Your task to perform on an android device: add a contact Image 0: 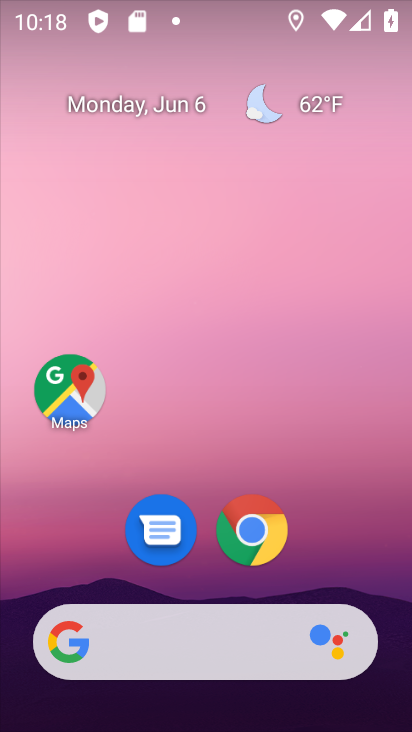
Step 0: drag from (317, 569) to (310, 186)
Your task to perform on an android device: add a contact Image 1: 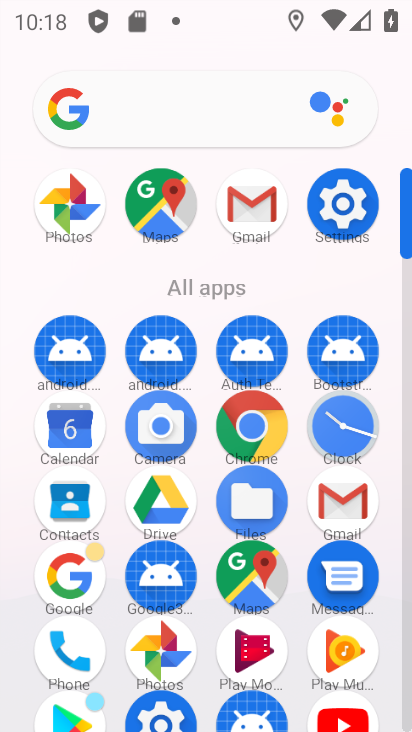
Step 1: click (68, 497)
Your task to perform on an android device: add a contact Image 2: 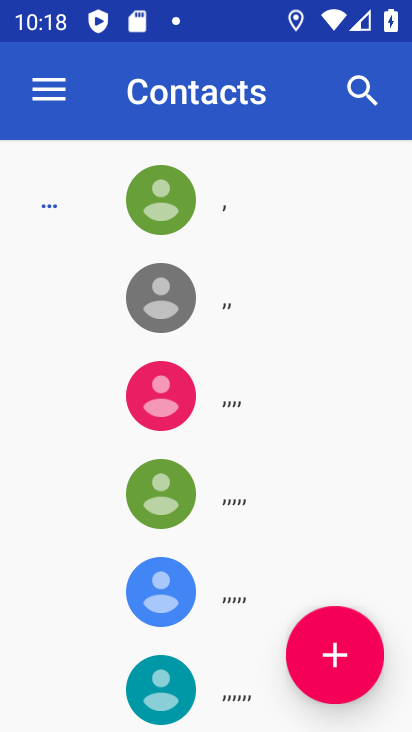
Step 2: click (319, 660)
Your task to perform on an android device: add a contact Image 3: 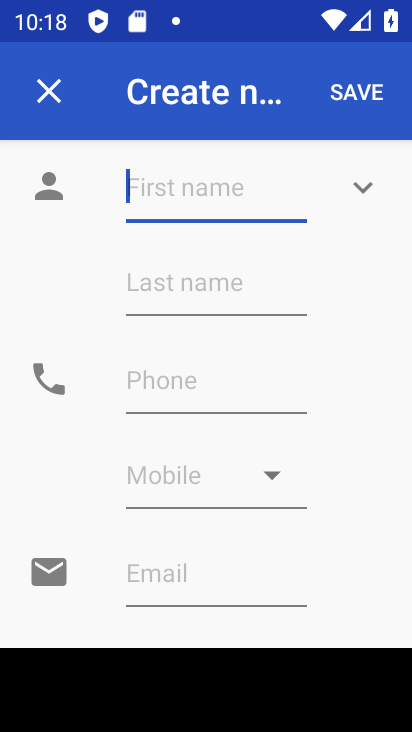
Step 3: type "hjkki"
Your task to perform on an android device: add a contact Image 4: 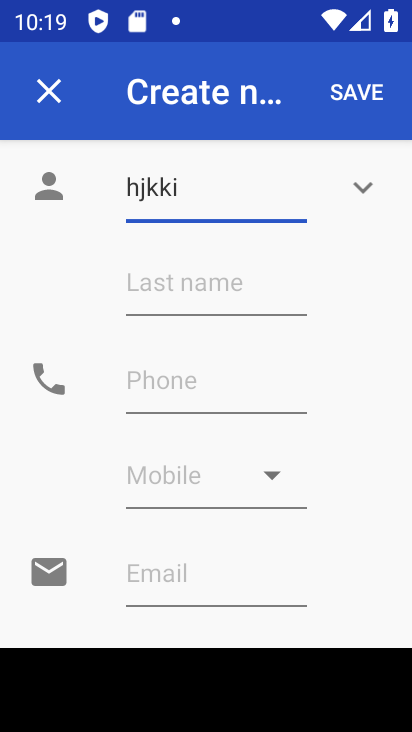
Step 4: click (343, 94)
Your task to perform on an android device: add a contact Image 5: 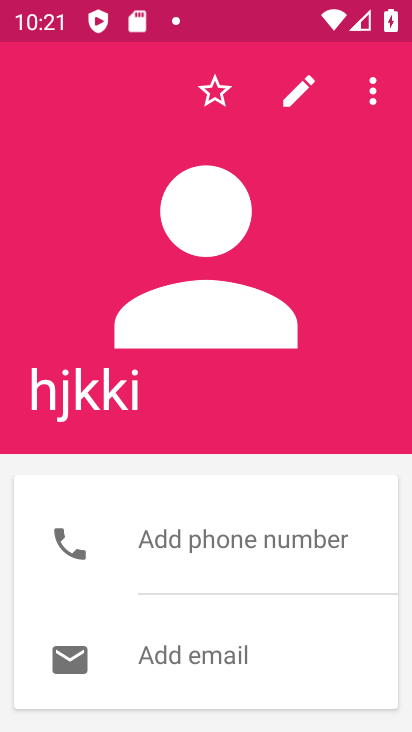
Step 5: task complete